Your task to perform on an android device: toggle pop-ups in chrome Image 0: 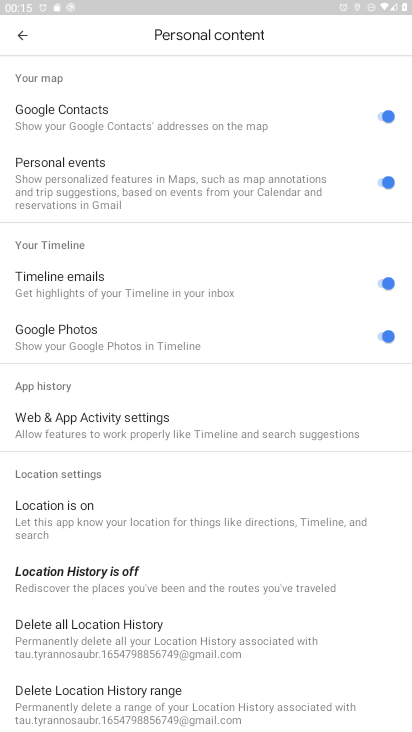
Step 0: press home button
Your task to perform on an android device: toggle pop-ups in chrome Image 1: 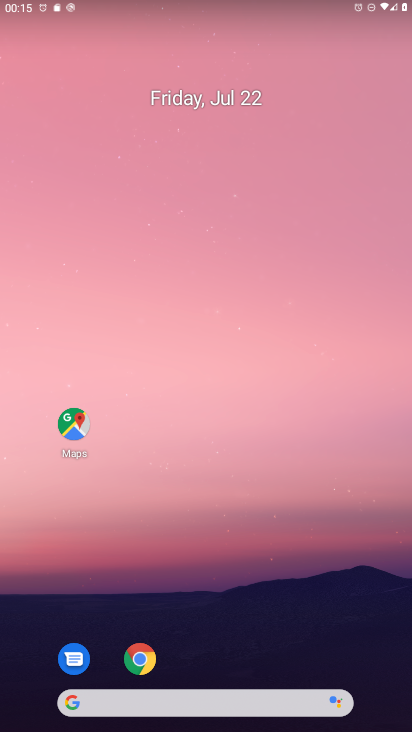
Step 1: click (140, 657)
Your task to perform on an android device: toggle pop-ups in chrome Image 2: 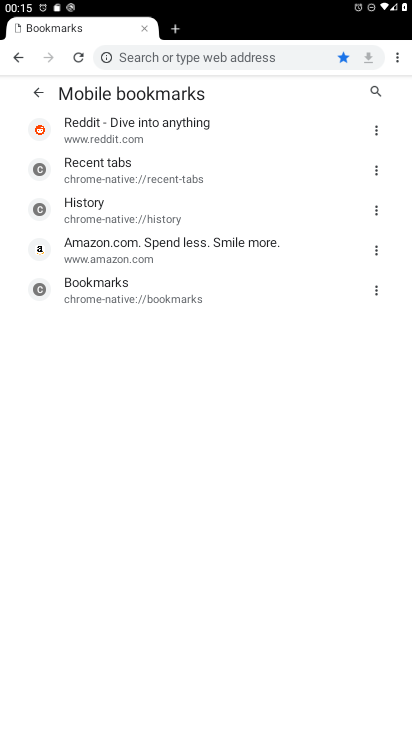
Step 2: click (396, 57)
Your task to perform on an android device: toggle pop-ups in chrome Image 3: 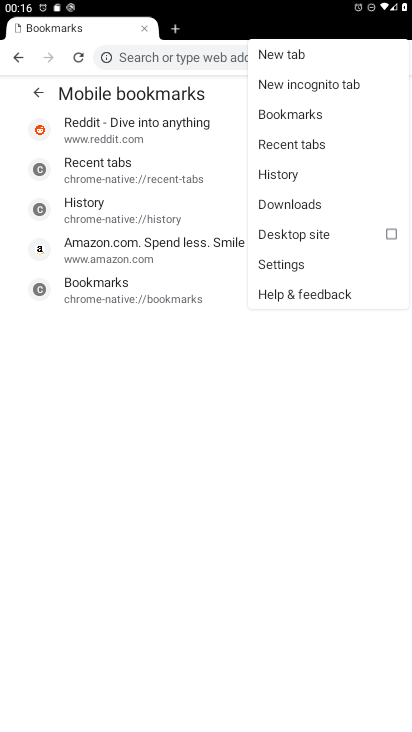
Step 3: click (287, 263)
Your task to perform on an android device: toggle pop-ups in chrome Image 4: 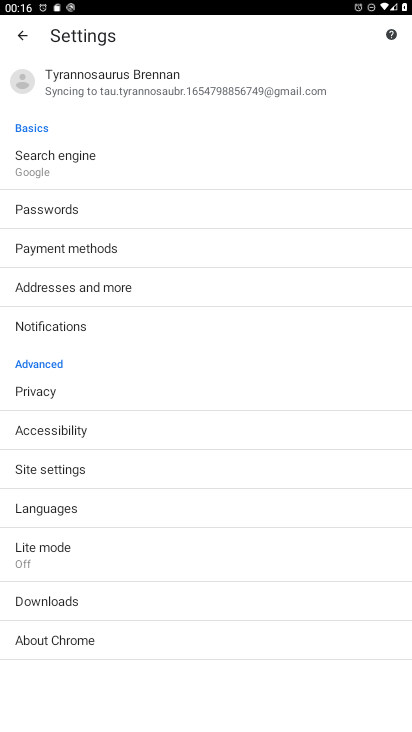
Step 4: click (53, 473)
Your task to perform on an android device: toggle pop-ups in chrome Image 5: 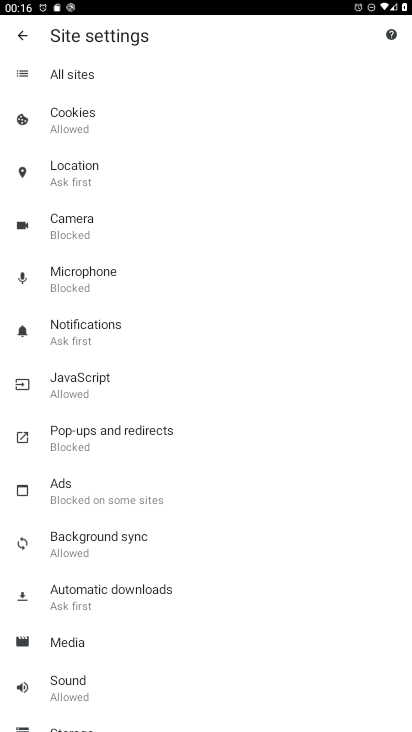
Step 5: click (105, 432)
Your task to perform on an android device: toggle pop-ups in chrome Image 6: 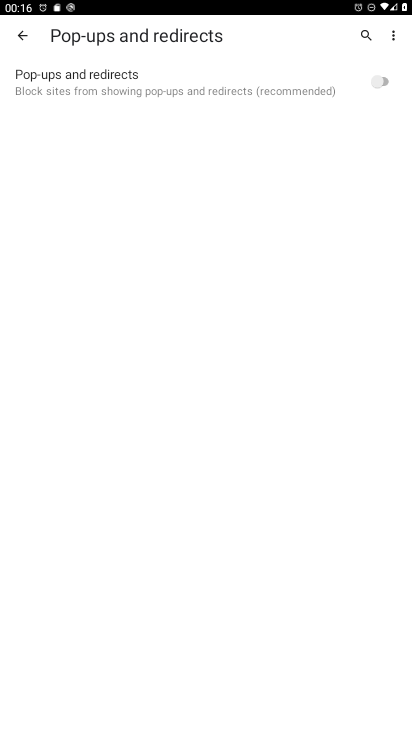
Step 6: click (376, 82)
Your task to perform on an android device: toggle pop-ups in chrome Image 7: 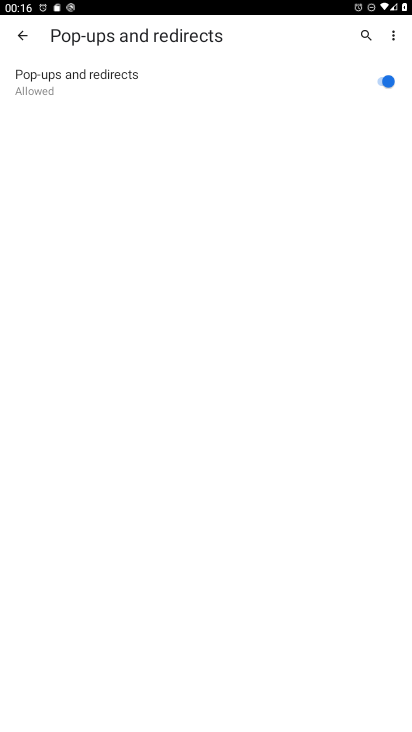
Step 7: task complete